Your task to perform on an android device: Search for Italian restaurants on Maps Image 0: 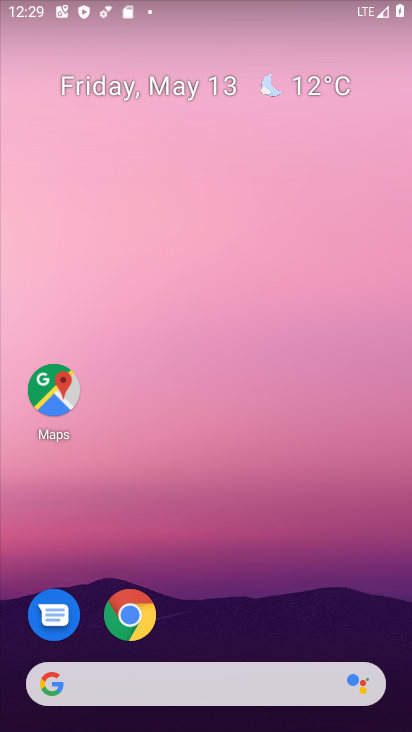
Step 0: click (44, 358)
Your task to perform on an android device: Search for Italian restaurants on Maps Image 1: 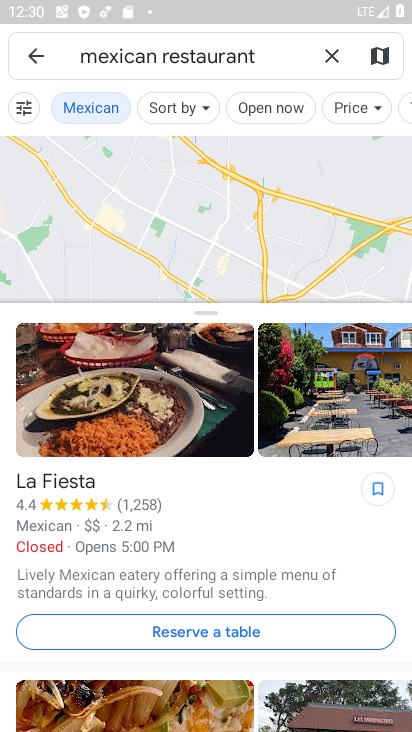
Step 1: click (336, 54)
Your task to perform on an android device: Search for Italian restaurants on Maps Image 2: 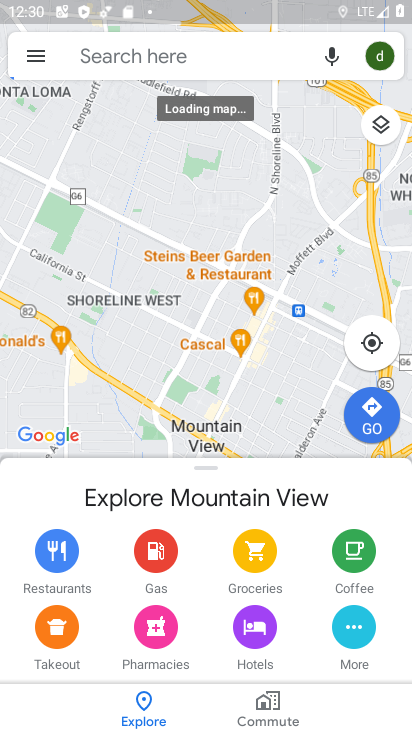
Step 2: click (280, 57)
Your task to perform on an android device: Search for Italian restaurants on Maps Image 3: 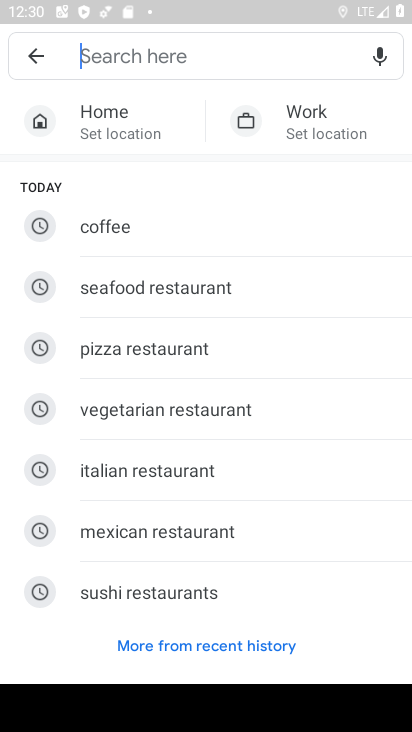
Step 3: click (265, 462)
Your task to perform on an android device: Search for Italian restaurants on Maps Image 4: 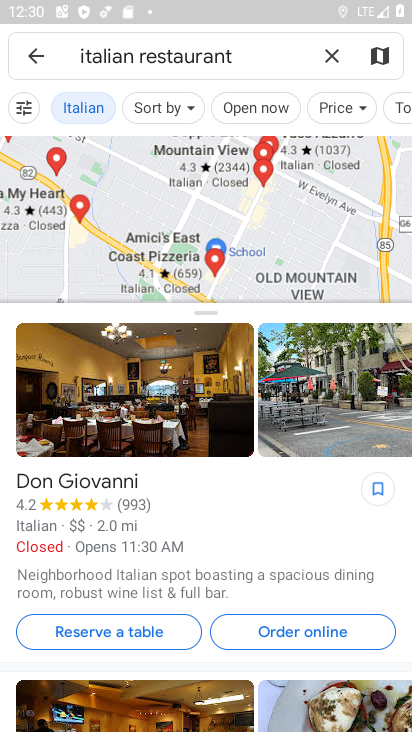
Step 4: task complete